Your task to perform on an android device: Empty the shopping cart on costco.com. Image 0: 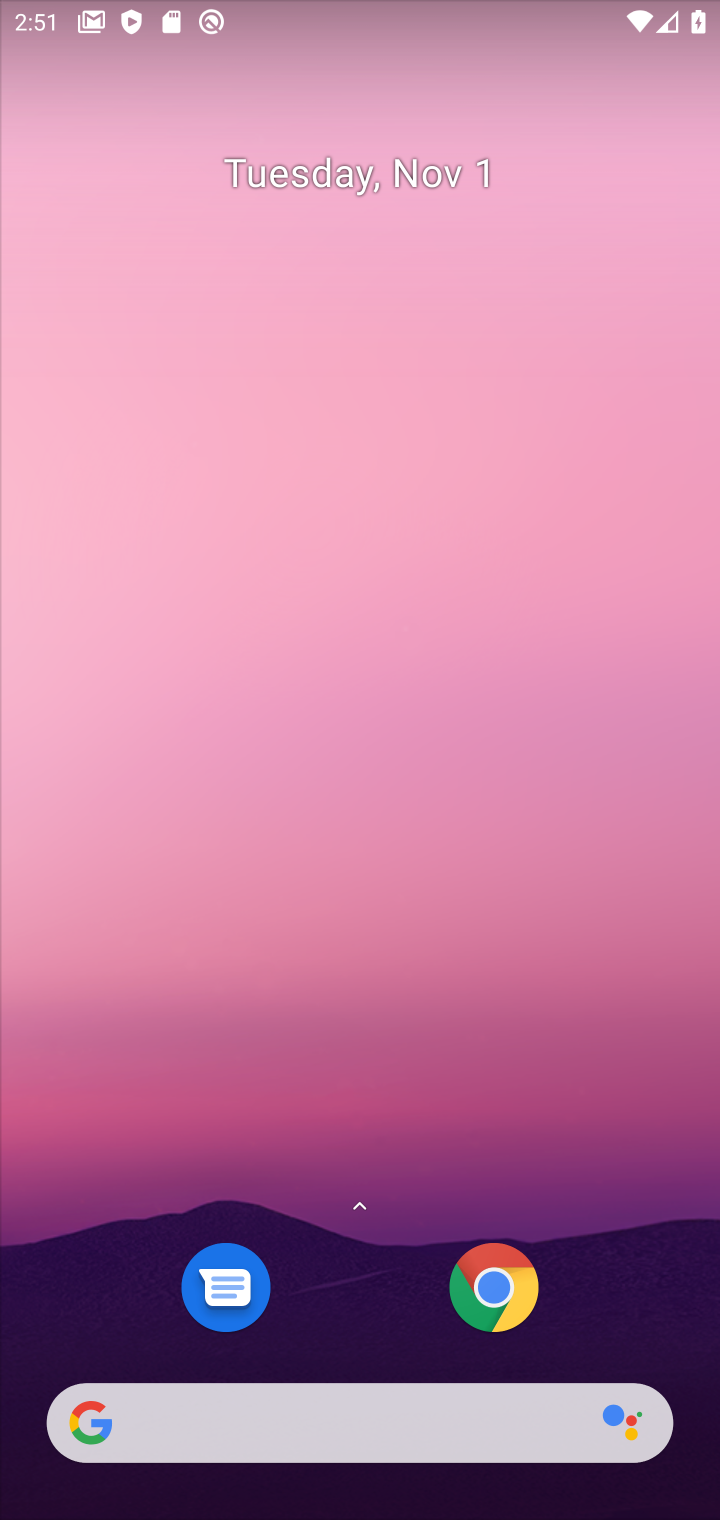
Step 0: drag from (366, 1256) to (342, 184)
Your task to perform on an android device: Empty the shopping cart on costco.com. Image 1: 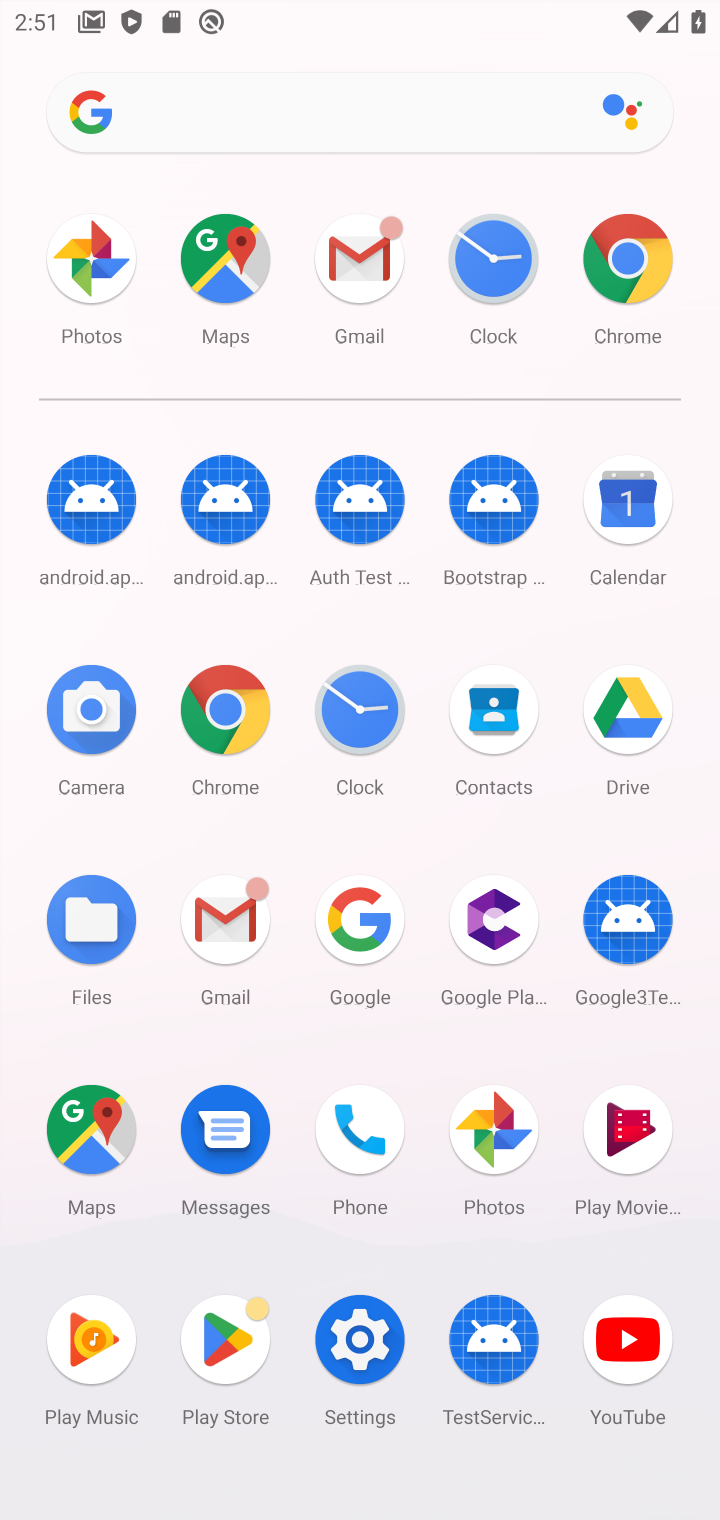
Step 1: click (231, 718)
Your task to perform on an android device: Empty the shopping cart on costco.com. Image 2: 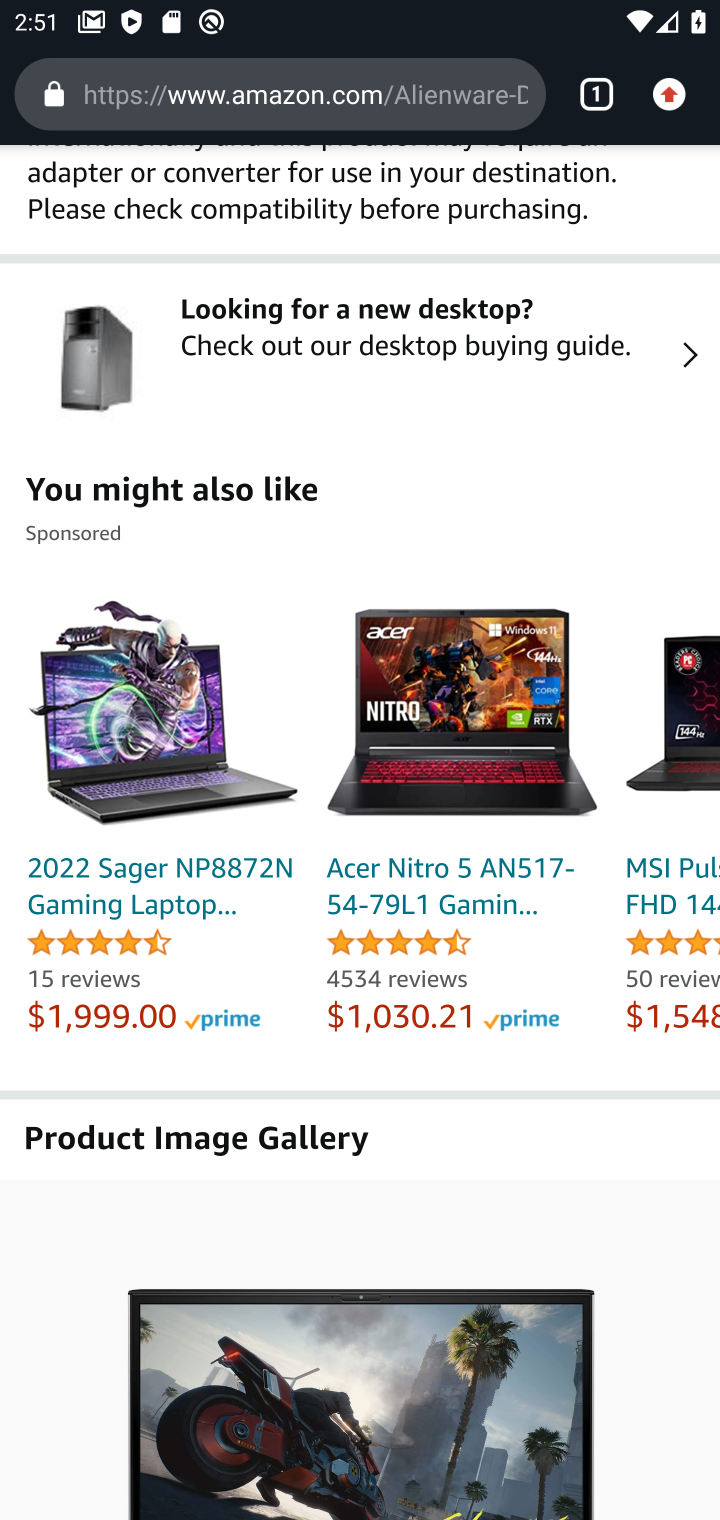
Step 2: click (374, 93)
Your task to perform on an android device: Empty the shopping cart on costco.com. Image 3: 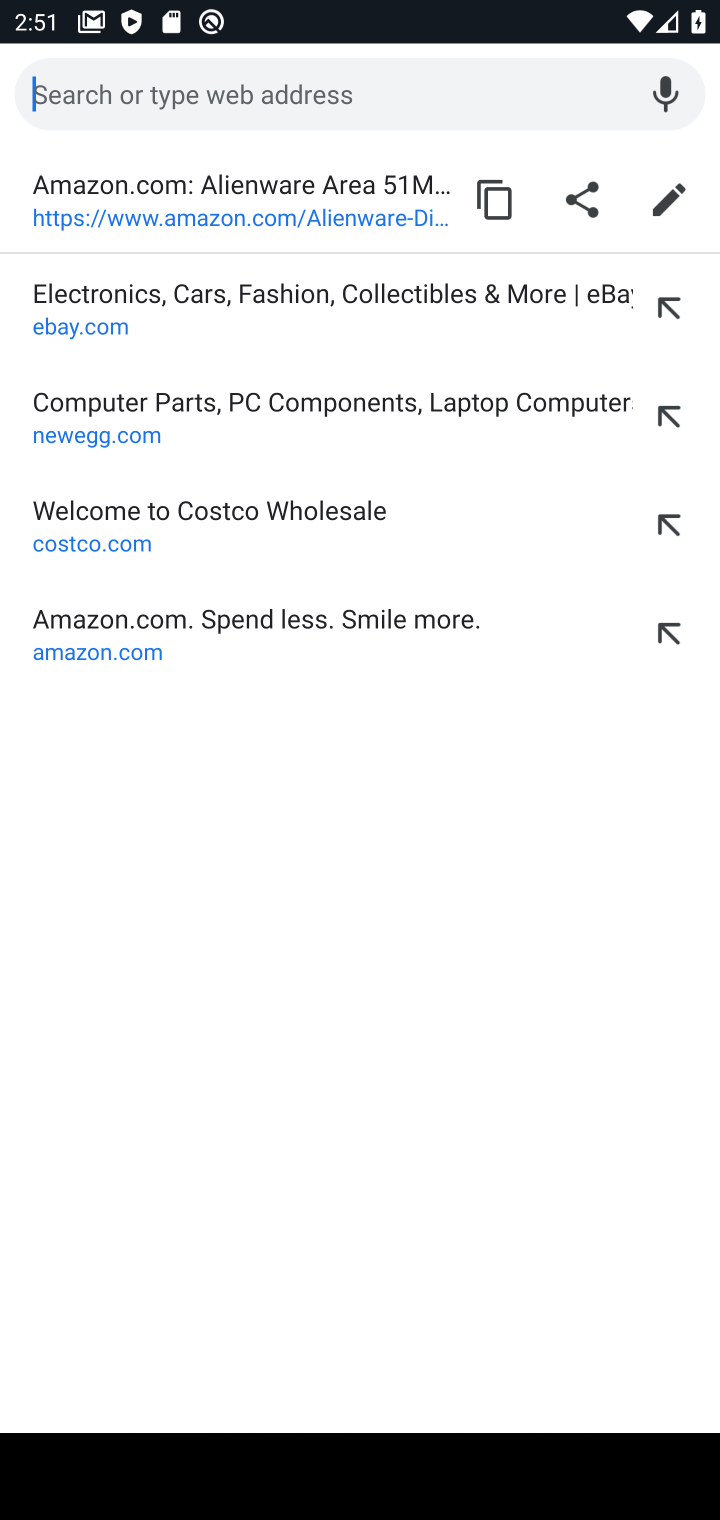
Step 3: type "costco.com"
Your task to perform on an android device: Empty the shopping cart on costco.com. Image 4: 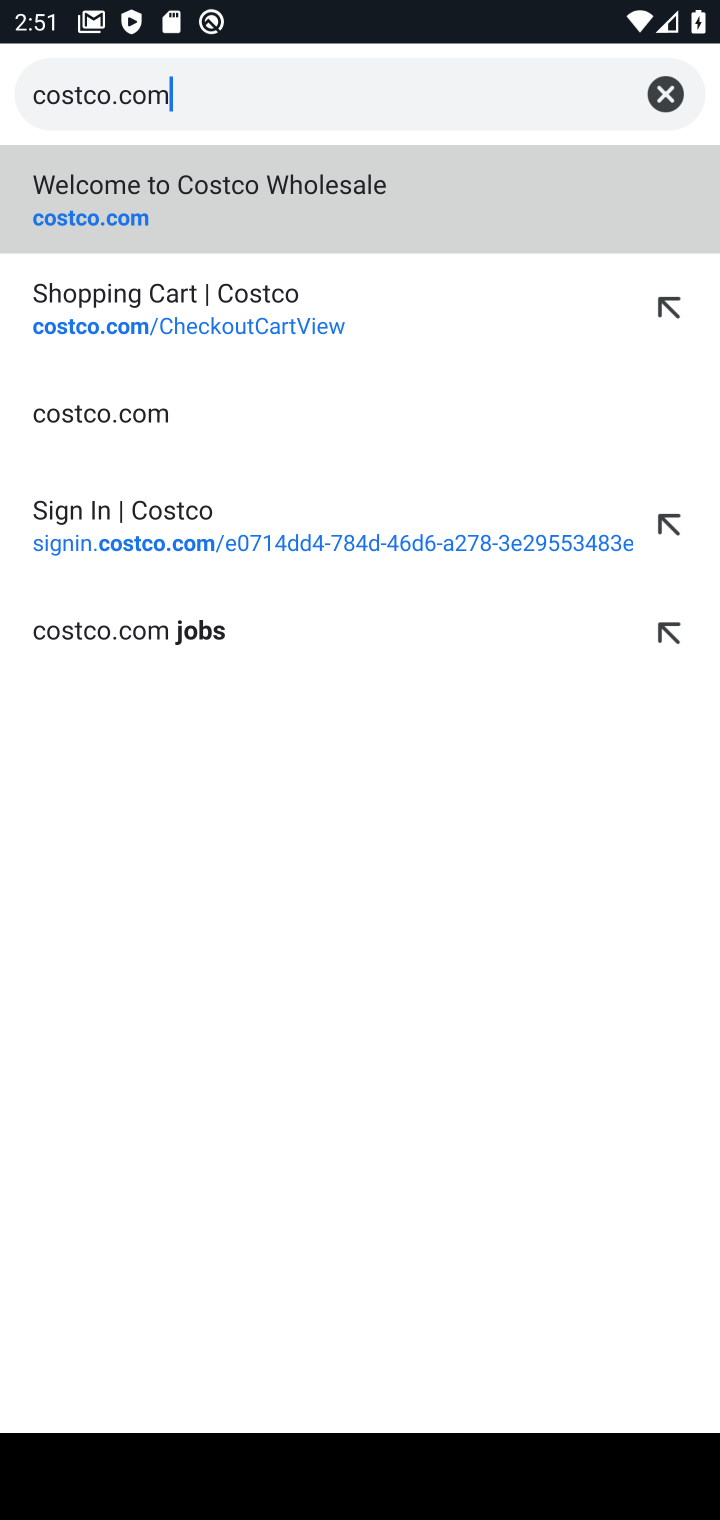
Step 4: press enter
Your task to perform on an android device: Empty the shopping cart on costco.com. Image 5: 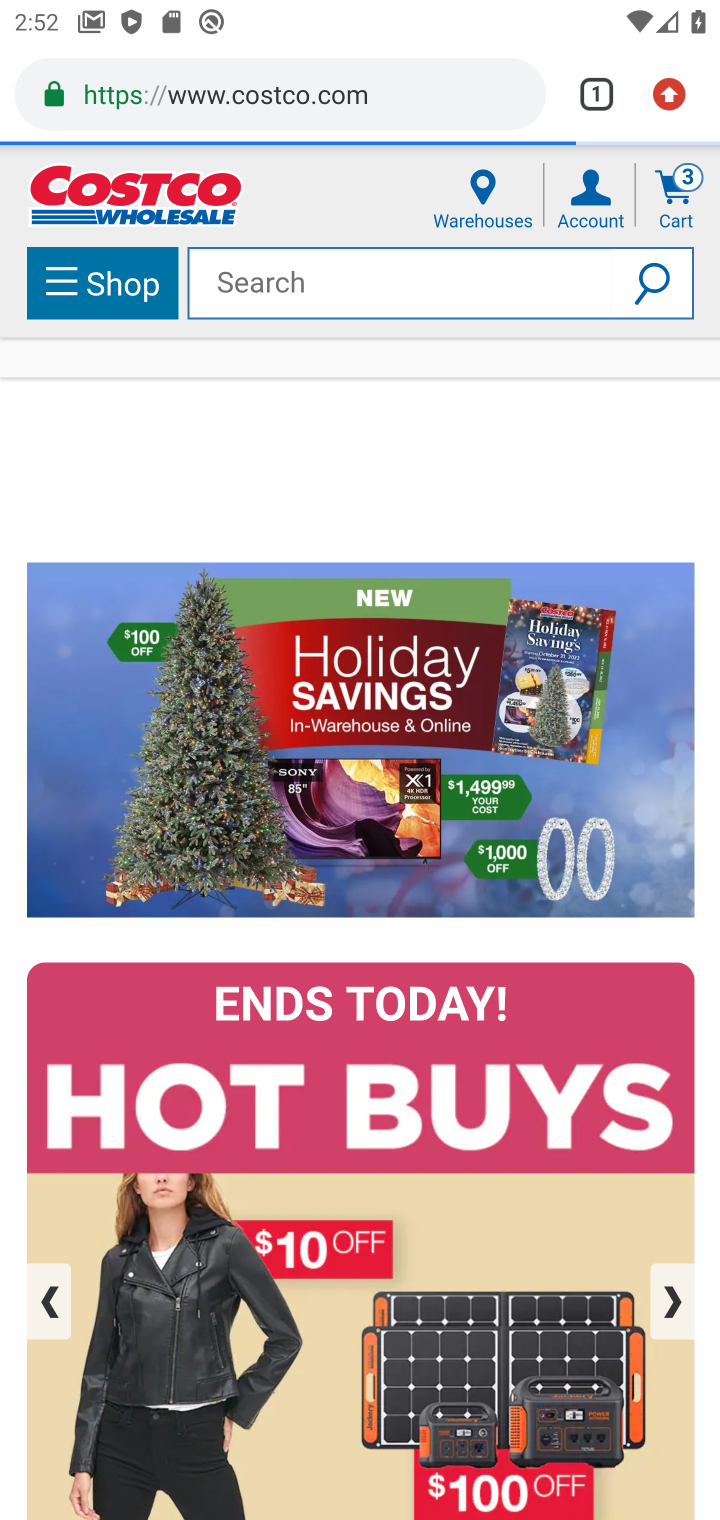
Step 5: click (675, 186)
Your task to perform on an android device: Empty the shopping cart on costco.com. Image 6: 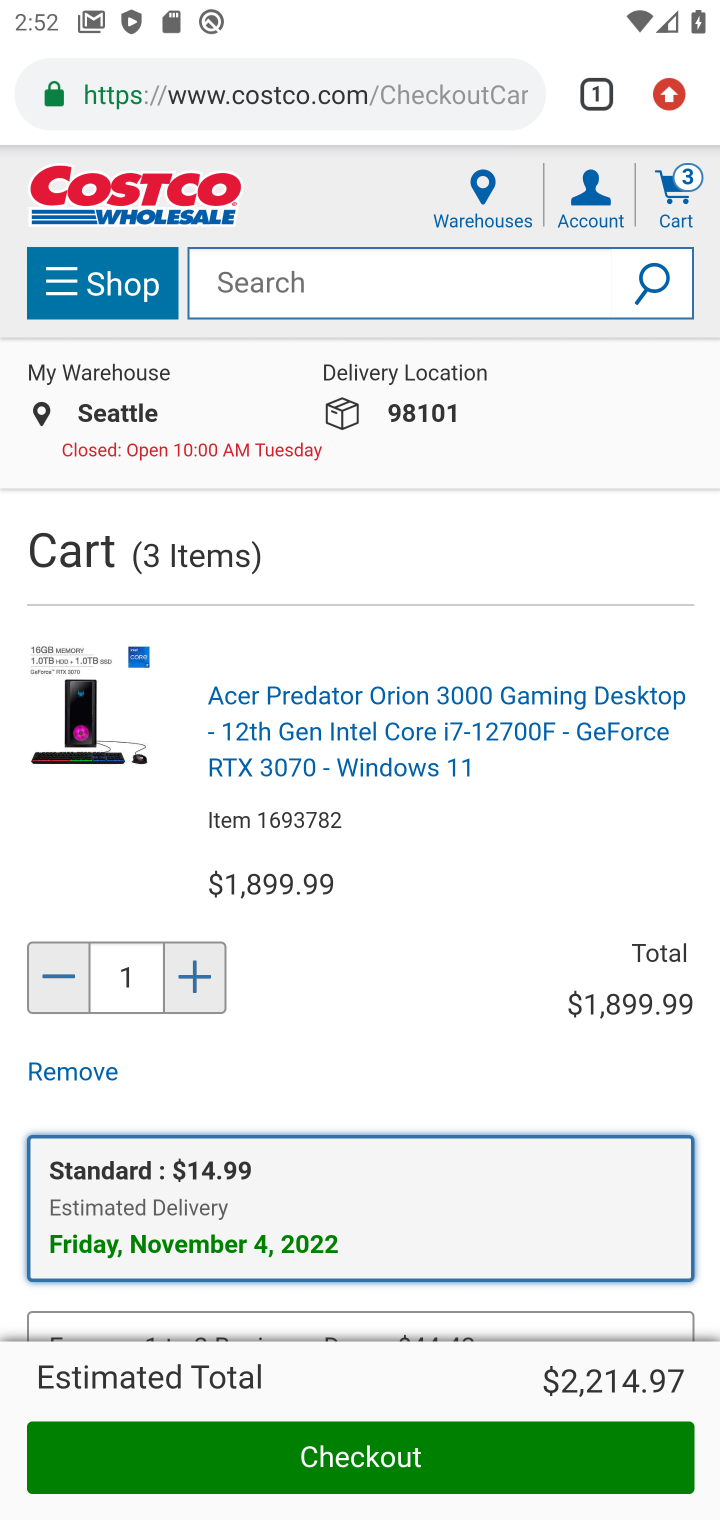
Step 6: click (98, 1076)
Your task to perform on an android device: Empty the shopping cart on costco.com. Image 7: 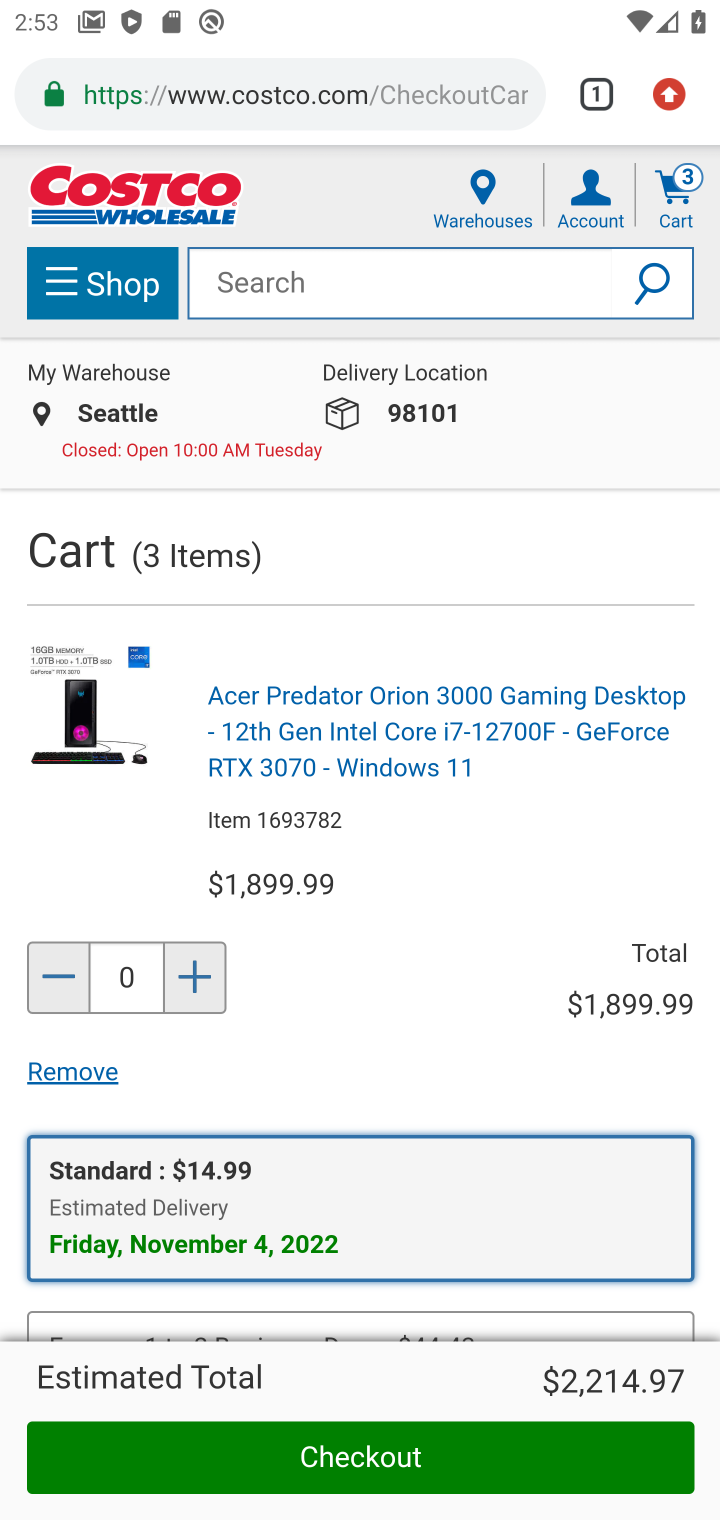
Step 7: click (77, 1063)
Your task to perform on an android device: Empty the shopping cart on costco.com. Image 8: 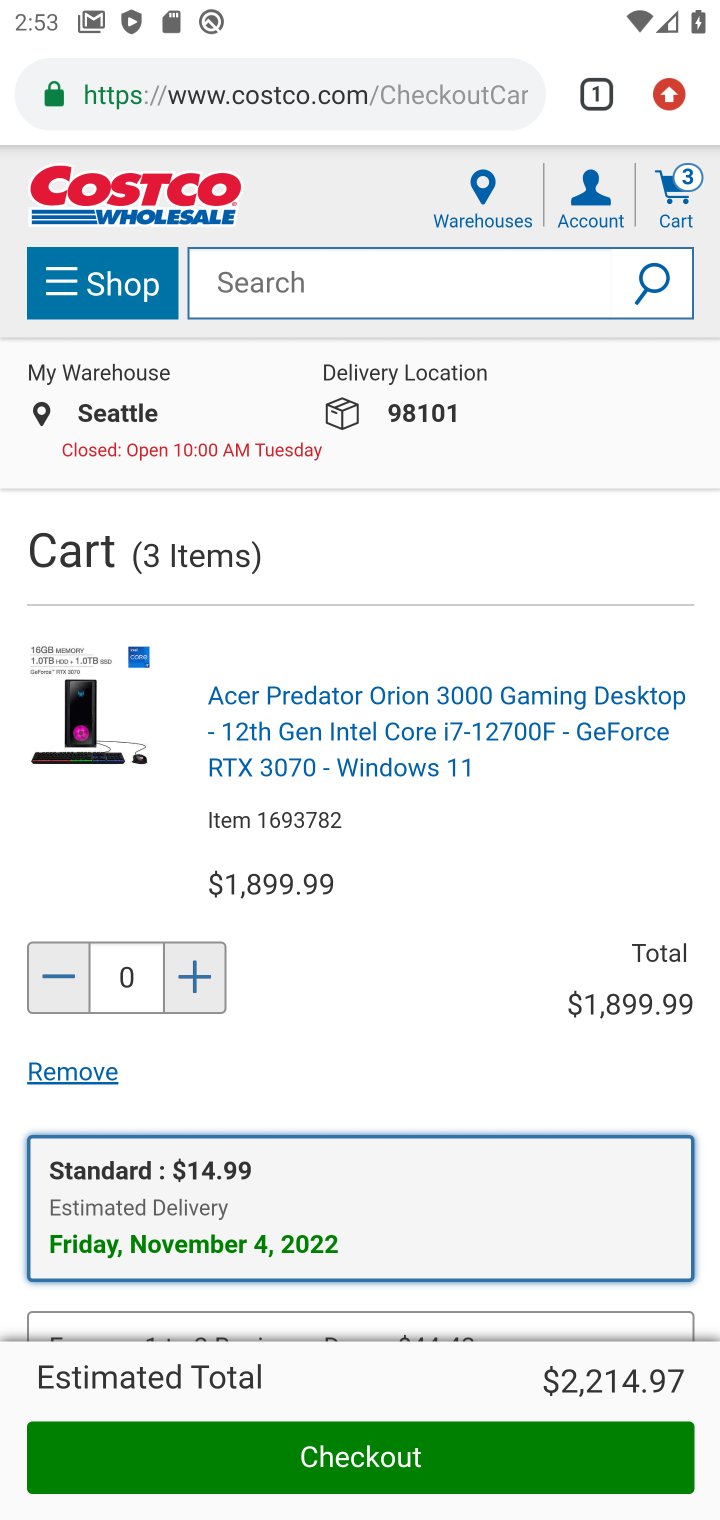
Step 8: drag from (499, 1021) to (617, 288)
Your task to perform on an android device: Empty the shopping cart on costco.com. Image 9: 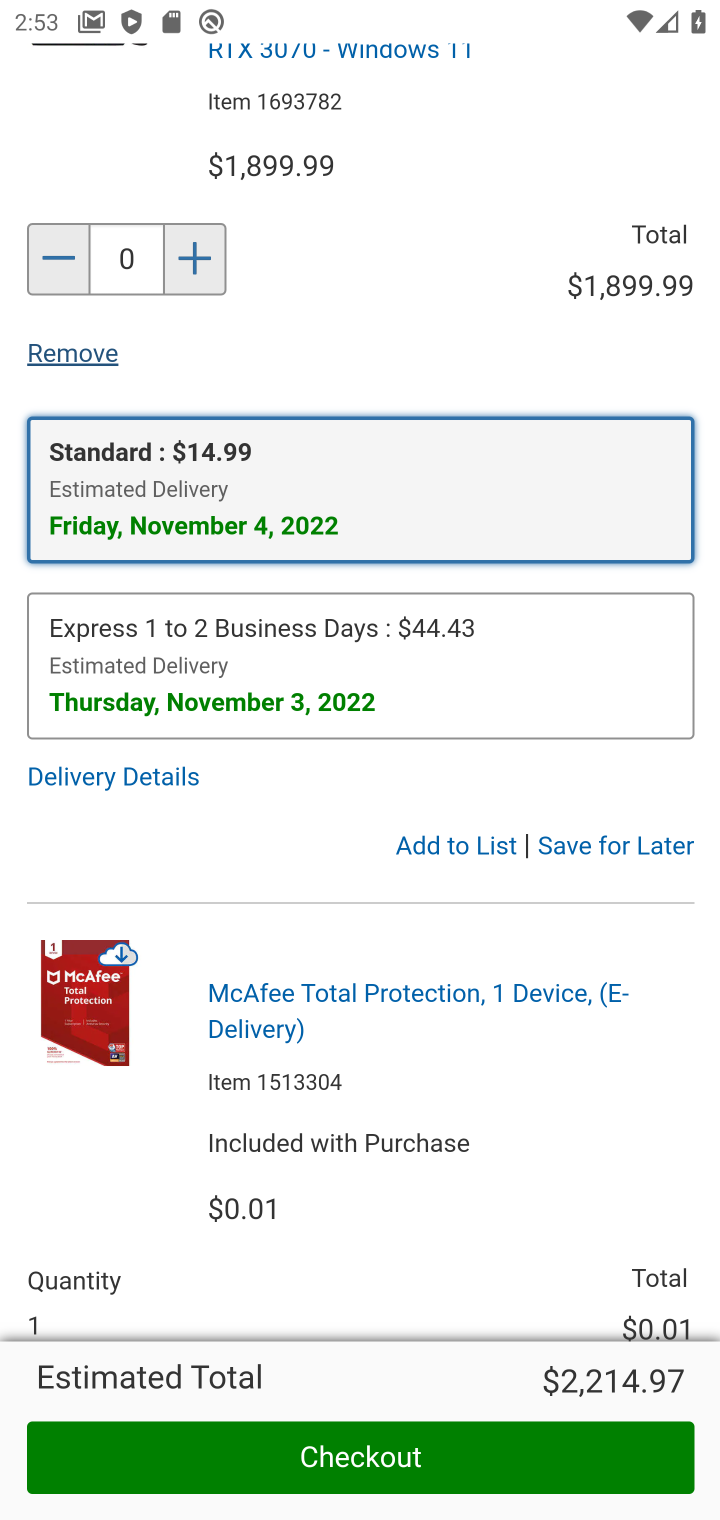
Step 9: drag from (430, 1014) to (592, 58)
Your task to perform on an android device: Empty the shopping cart on costco.com. Image 10: 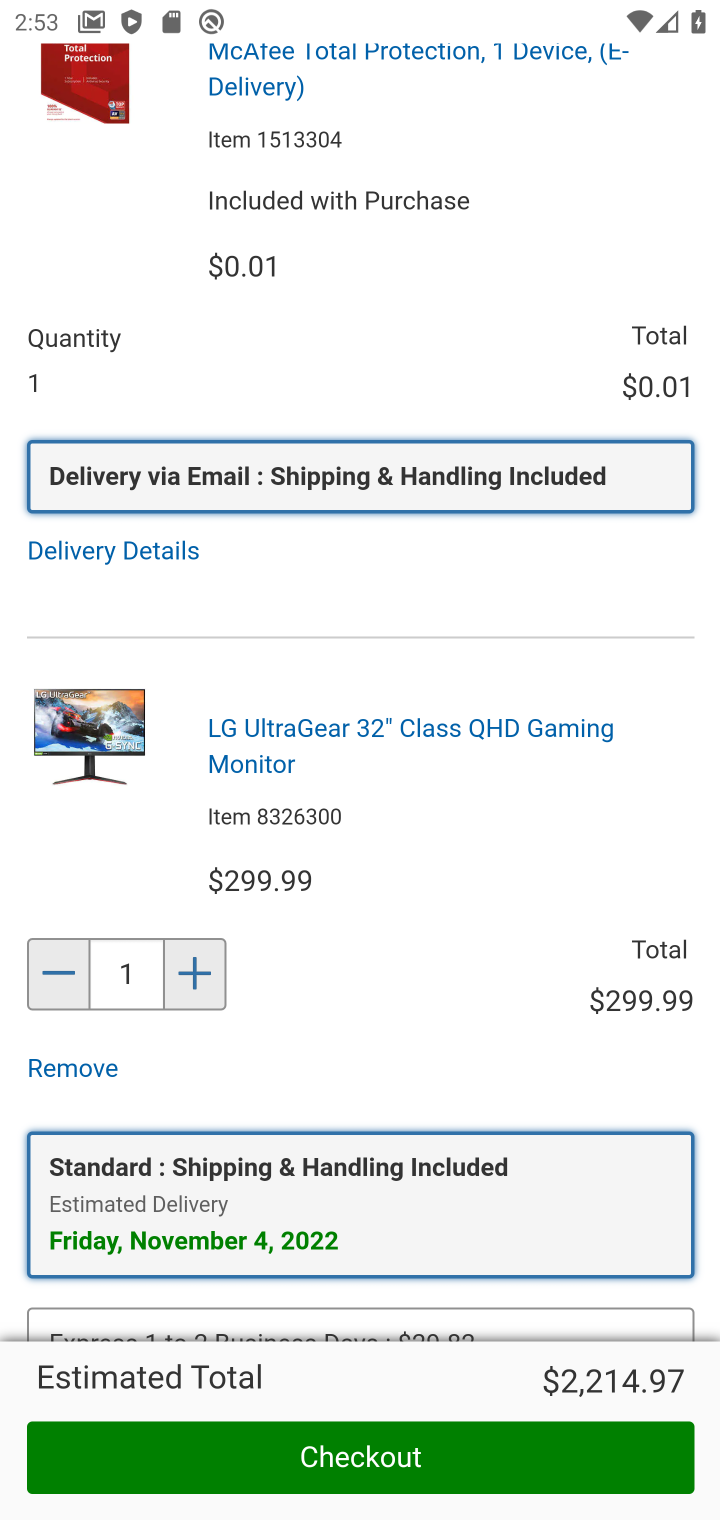
Step 10: click (93, 1051)
Your task to perform on an android device: Empty the shopping cart on costco.com. Image 11: 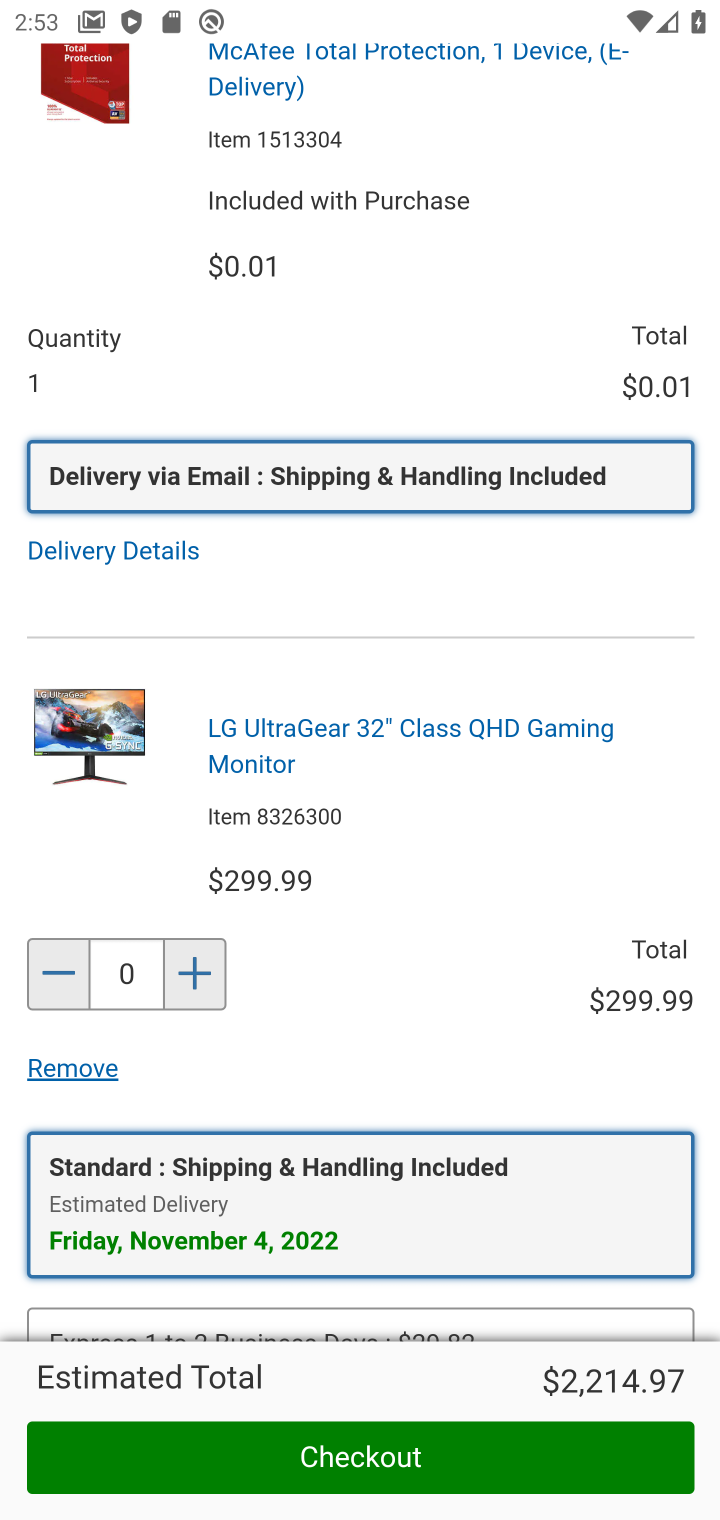
Step 11: drag from (325, 671) to (425, 1089)
Your task to perform on an android device: Empty the shopping cart on costco.com. Image 12: 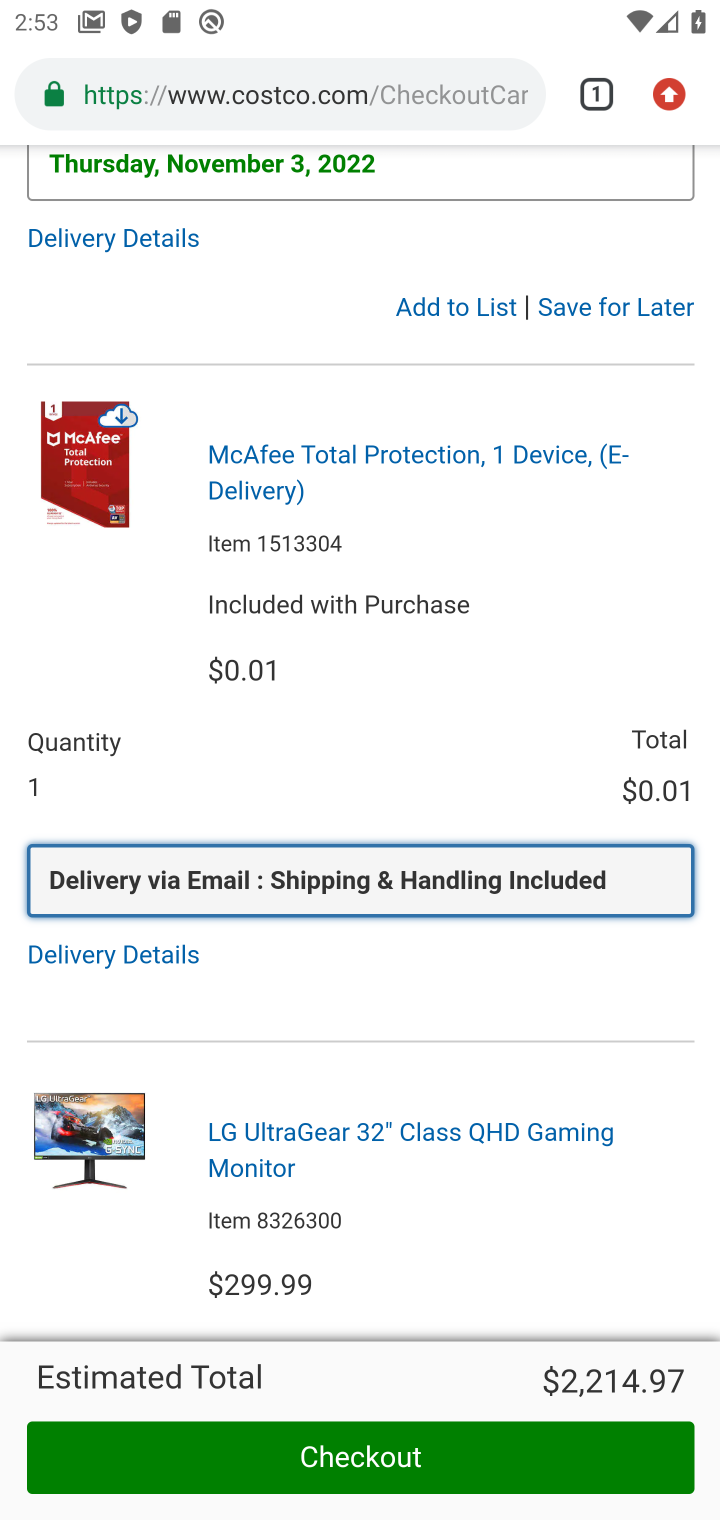
Step 12: click (525, 1439)
Your task to perform on an android device: Empty the shopping cart on costco.com. Image 13: 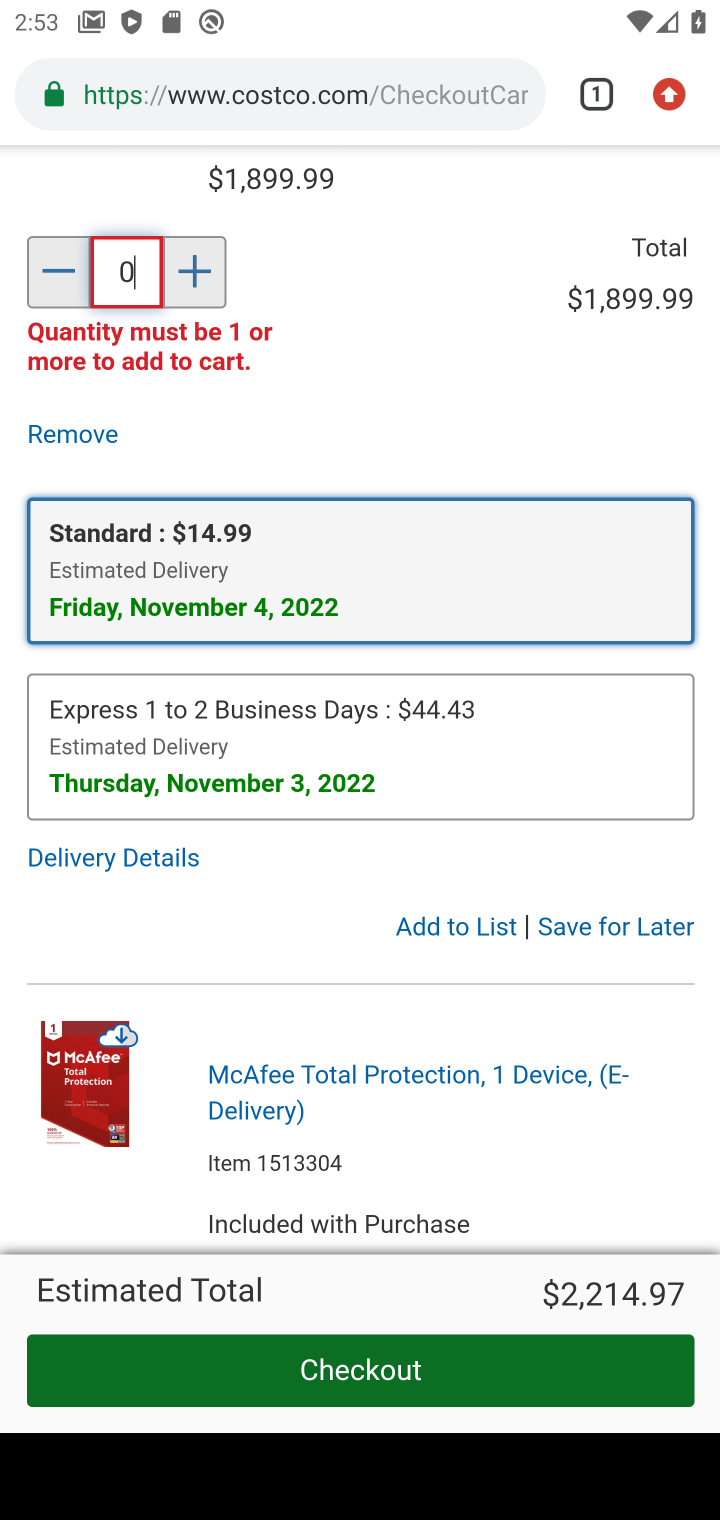
Step 13: task complete